Your task to perform on an android device: refresh tabs in the chrome app Image 0: 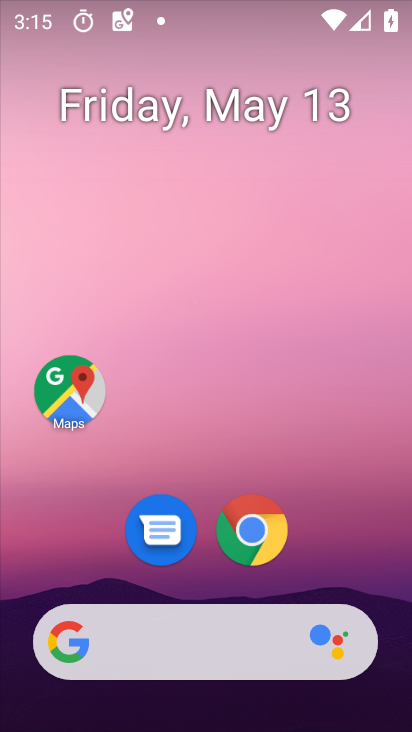
Step 0: click (263, 530)
Your task to perform on an android device: refresh tabs in the chrome app Image 1: 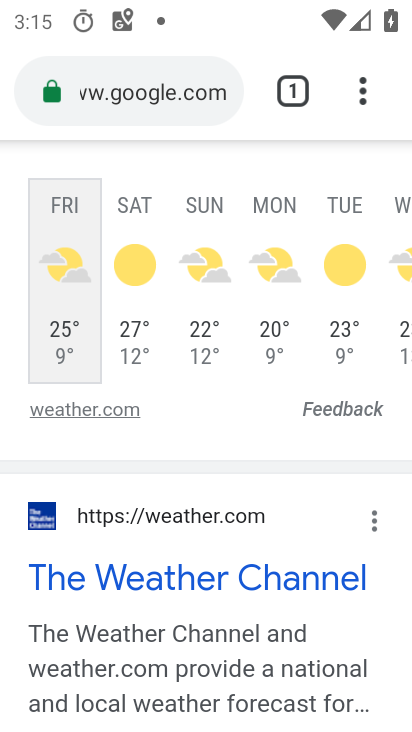
Step 1: click (369, 76)
Your task to perform on an android device: refresh tabs in the chrome app Image 2: 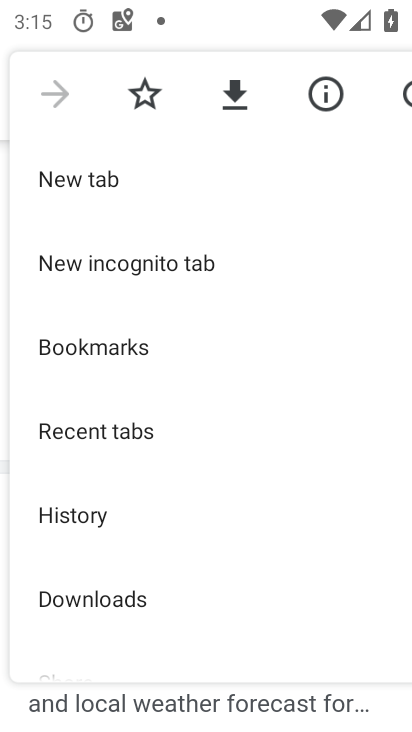
Step 2: drag from (353, 85) to (145, 102)
Your task to perform on an android device: refresh tabs in the chrome app Image 3: 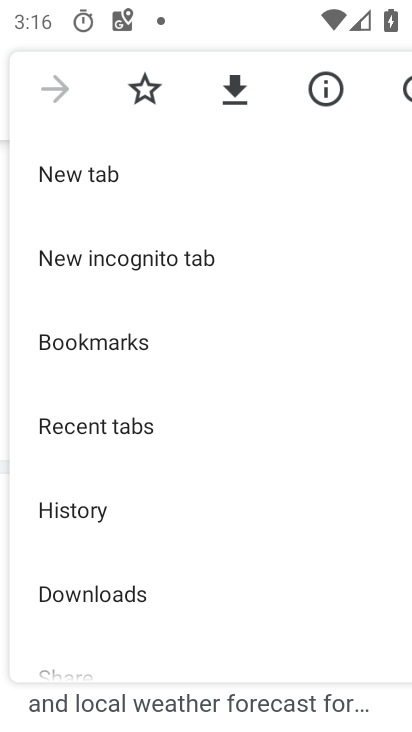
Step 3: click (394, 80)
Your task to perform on an android device: refresh tabs in the chrome app Image 4: 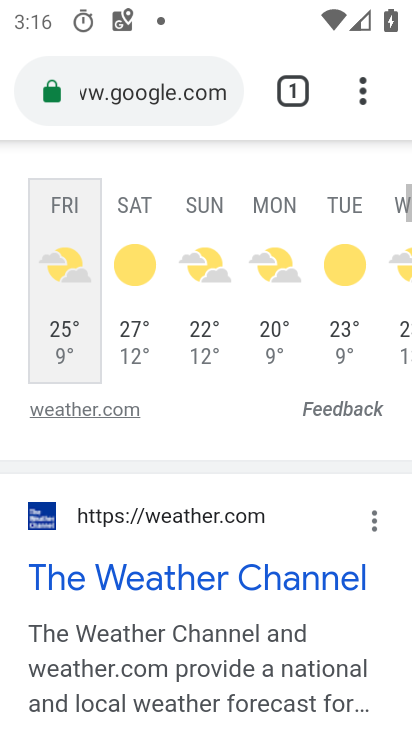
Step 4: task complete